Your task to perform on an android device: check battery use Image 0: 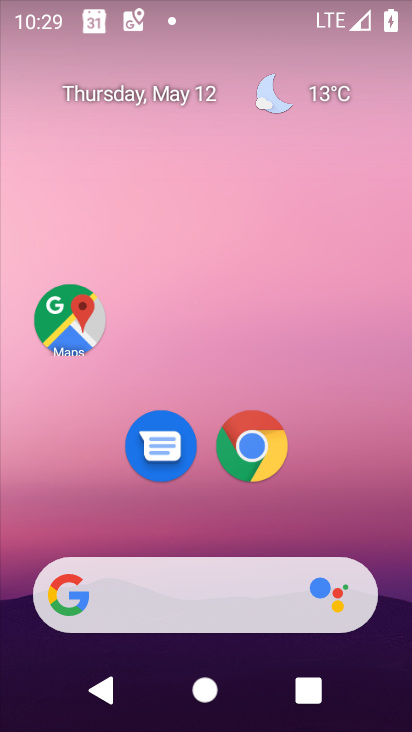
Step 0: drag from (254, 586) to (308, 53)
Your task to perform on an android device: check battery use Image 1: 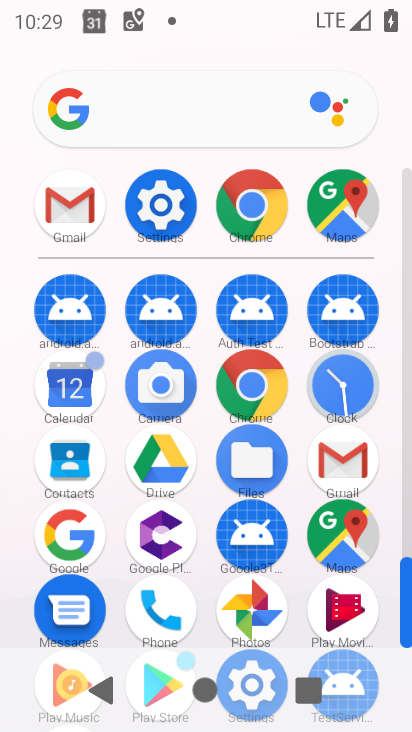
Step 1: click (163, 206)
Your task to perform on an android device: check battery use Image 2: 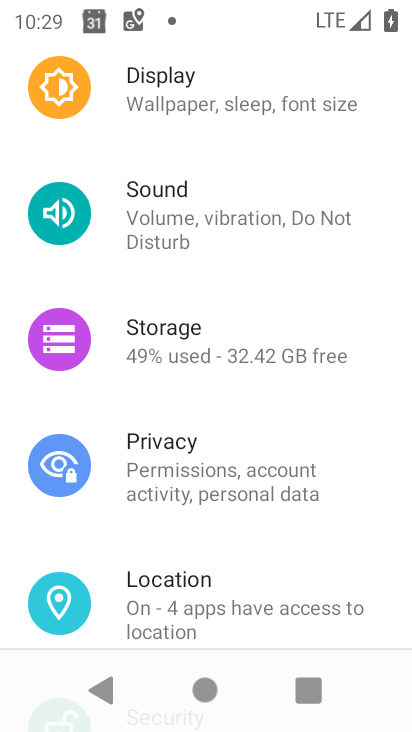
Step 2: drag from (199, 214) to (245, 682)
Your task to perform on an android device: check battery use Image 3: 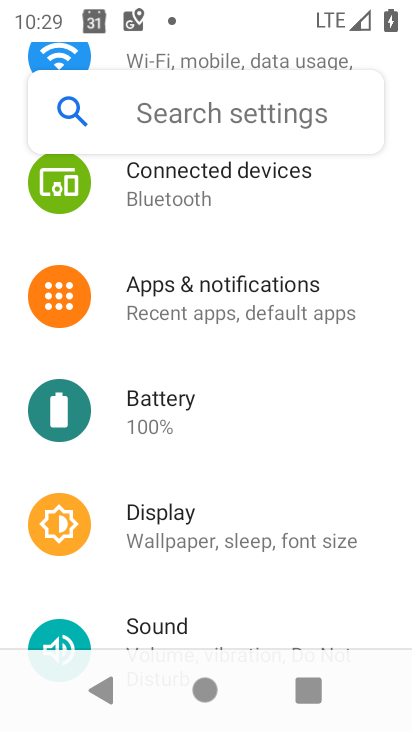
Step 3: click (201, 413)
Your task to perform on an android device: check battery use Image 4: 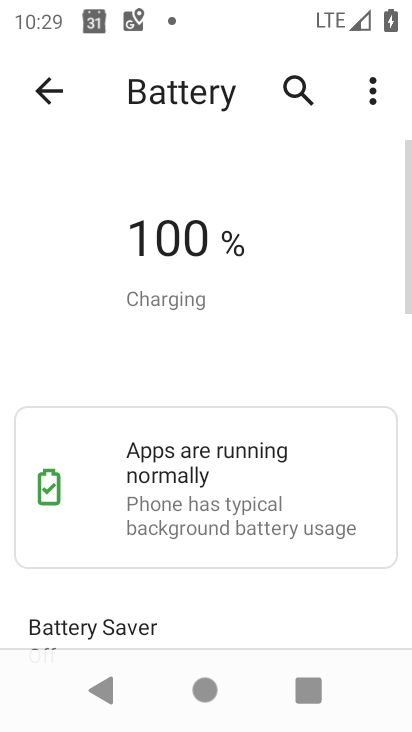
Step 4: task complete